Your task to perform on an android device: What's the weather? Image 0: 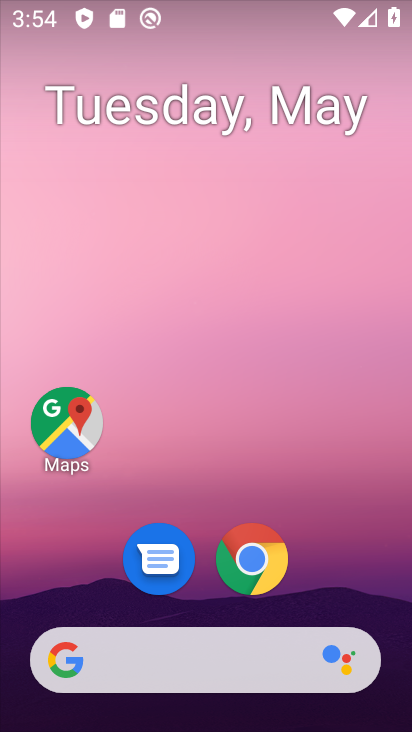
Step 0: drag from (352, 592) to (249, 142)
Your task to perform on an android device: What's the weather? Image 1: 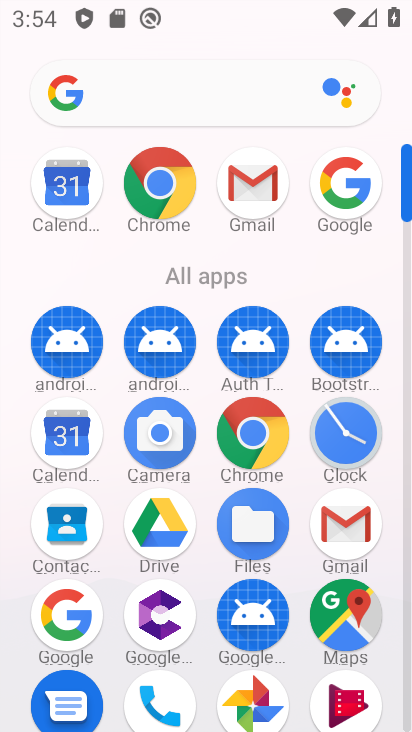
Step 1: click (158, 77)
Your task to perform on an android device: What's the weather? Image 2: 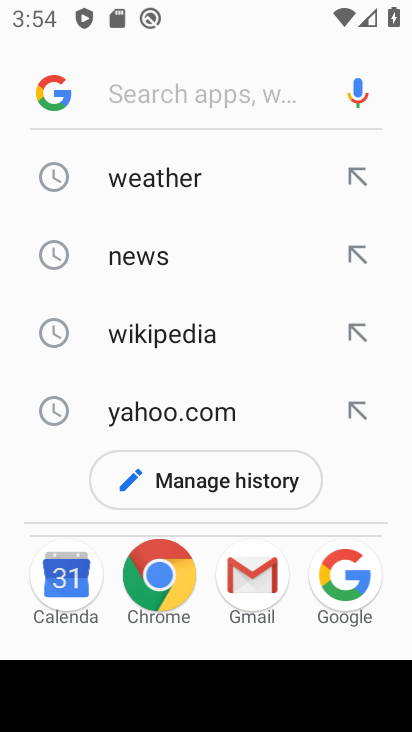
Step 2: click (142, 166)
Your task to perform on an android device: What's the weather? Image 3: 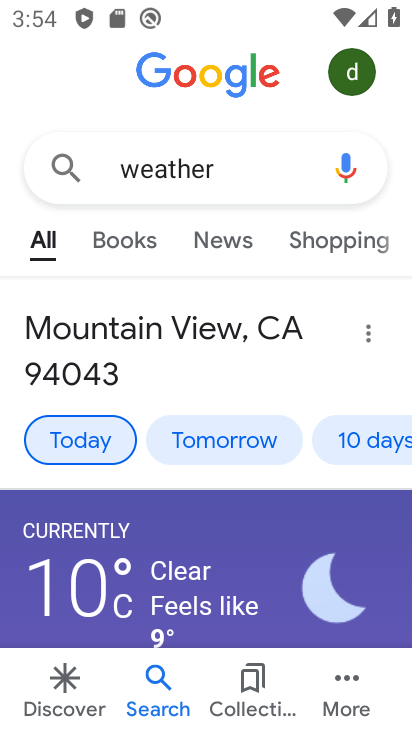
Step 3: task complete